Your task to perform on an android device: Open Chrome and go to settings Image 0: 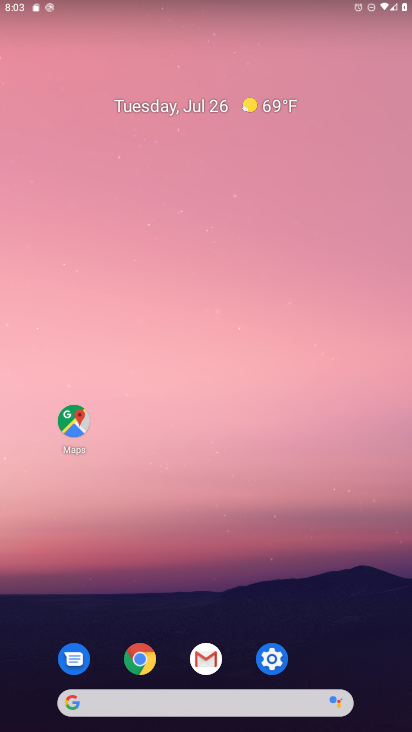
Step 0: click (149, 659)
Your task to perform on an android device: Open Chrome and go to settings Image 1: 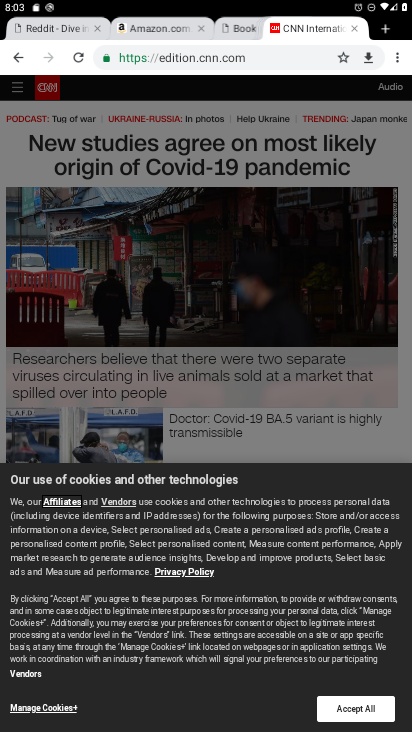
Step 1: click (396, 61)
Your task to perform on an android device: Open Chrome and go to settings Image 2: 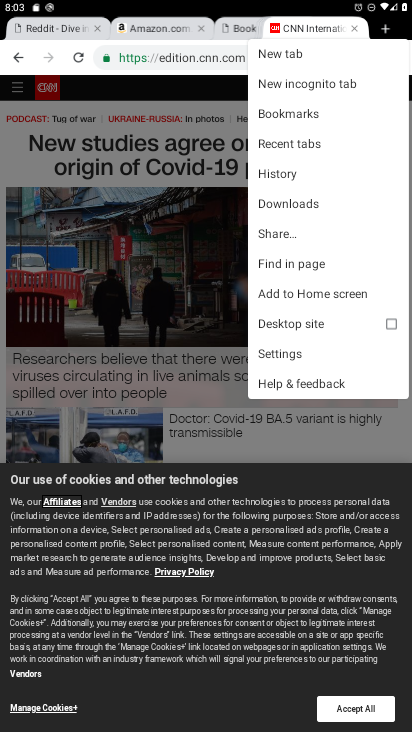
Step 2: click (277, 359)
Your task to perform on an android device: Open Chrome and go to settings Image 3: 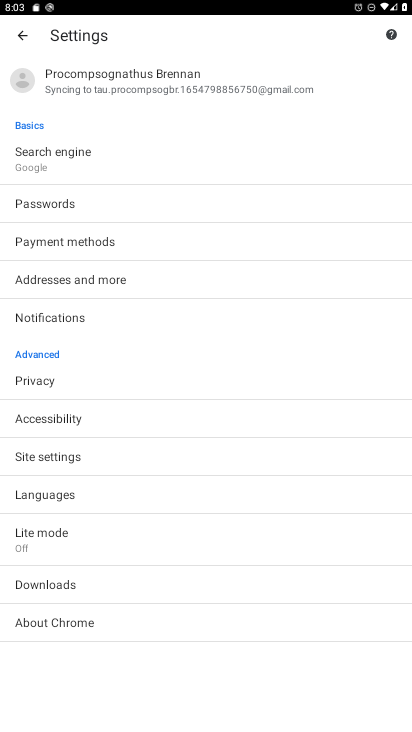
Step 3: task complete